Your task to perform on an android device: open app "Pandora - Music & Podcasts" (install if not already installed) Image 0: 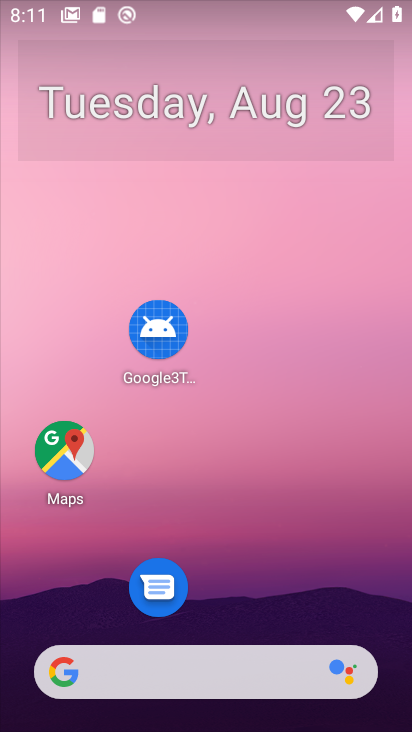
Step 0: drag from (264, 596) to (231, 109)
Your task to perform on an android device: open app "Pandora - Music & Podcasts" (install if not already installed) Image 1: 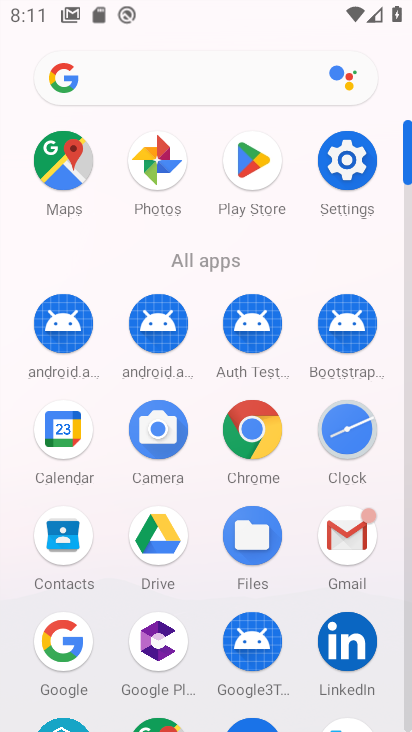
Step 1: click (249, 195)
Your task to perform on an android device: open app "Pandora - Music & Podcasts" (install if not already installed) Image 2: 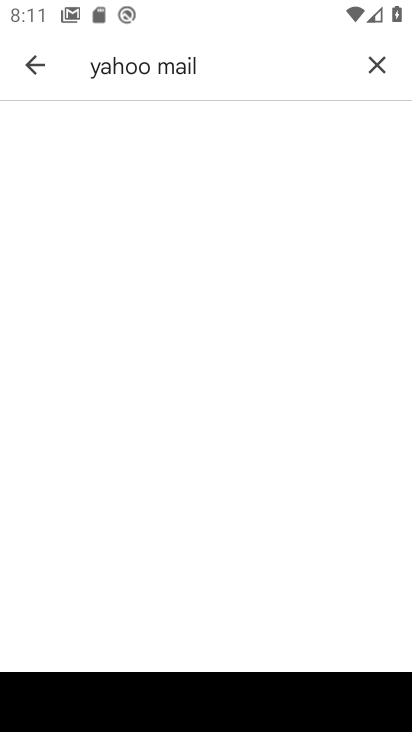
Step 2: click (365, 65)
Your task to perform on an android device: open app "Pandora - Music & Podcasts" (install if not already installed) Image 3: 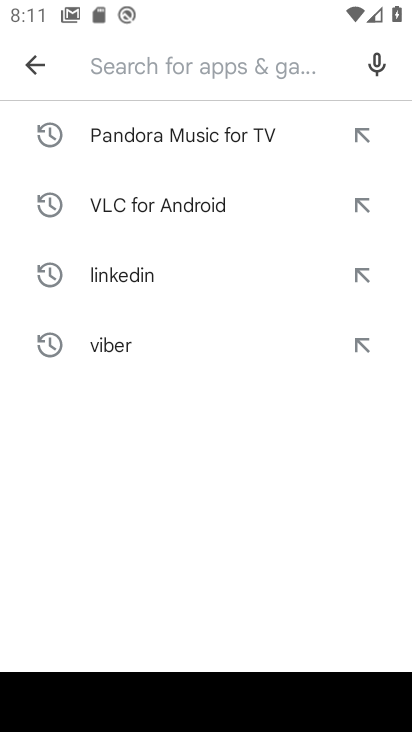
Step 3: type "pandora"
Your task to perform on an android device: open app "Pandora - Music & Podcasts" (install if not already installed) Image 4: 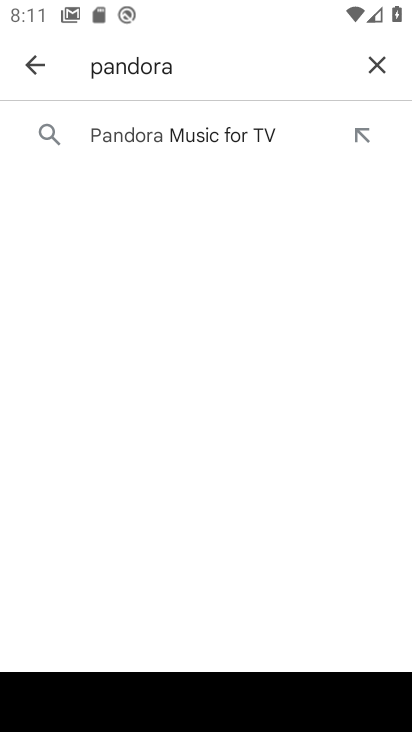
Step 4: click (231, 154)
Your task to perform on an android device: open app "Pandora - Music & Podcasts" (install if not already installed) Image 5: 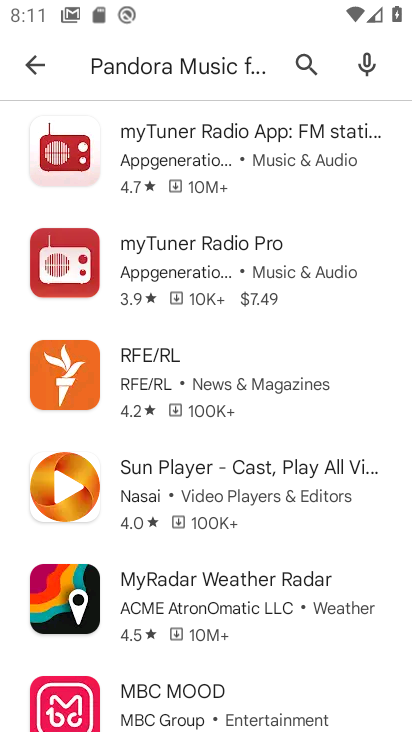
Step 5: task complete